Your task to perform on an android device: empty trash in google photos Image 0: 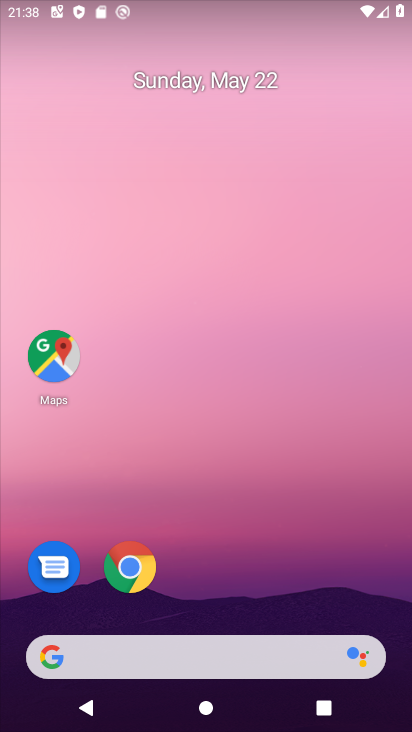
Step 0: drag from (222, 582) to (221, 338)
Your task to perform on an android device: empty trash in google photos Image 1: 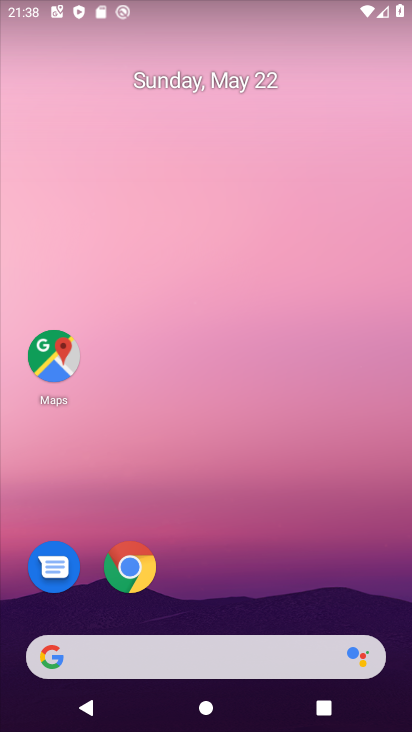
Step 1: drag from (267, 557) to (229, 327)
Your task to perform on an android device: empty trash in google photos Image 2: 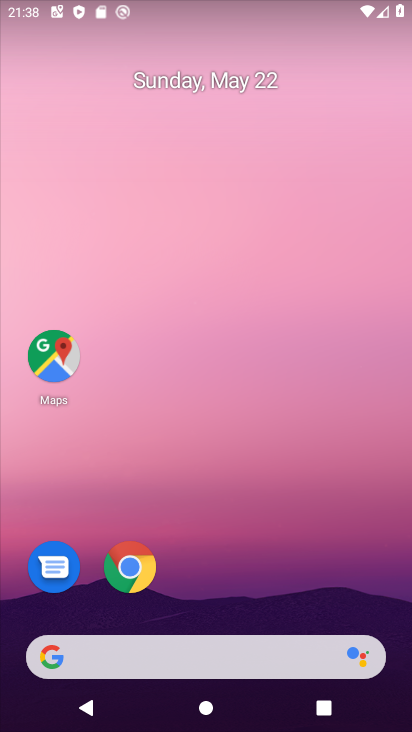
Step 2: drag from (231, 572) to (197, 283)
Your task to perform on an android device: empty trash in google photos Image 3: 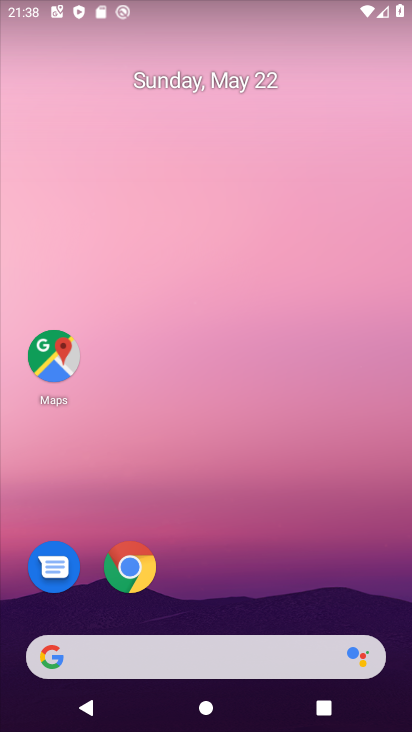
Step 3: drag from (219, 645) to (177, 255)
Your task to perform on an android device: empty trash in google photos Image 4: 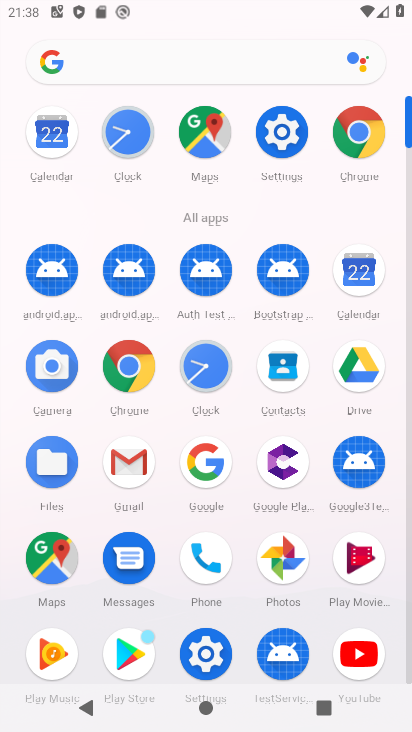
Step 4: click (291, 551)
Your task to perform on an android device: empty trash in google photos Image 5: 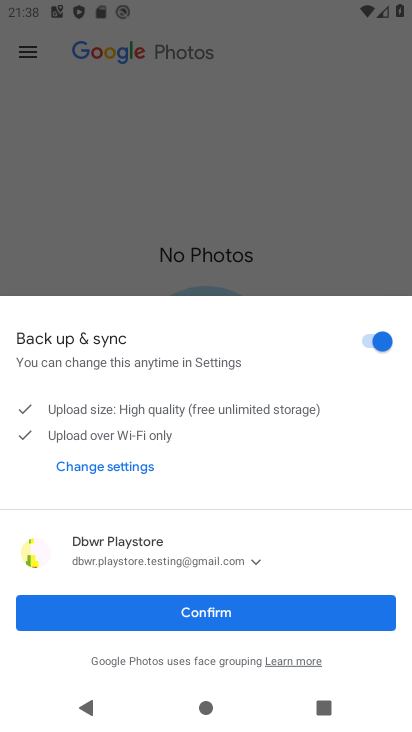
Step 5: click (276, 555)
Your task to perform on an android device: empty trash in google photos Image 6: 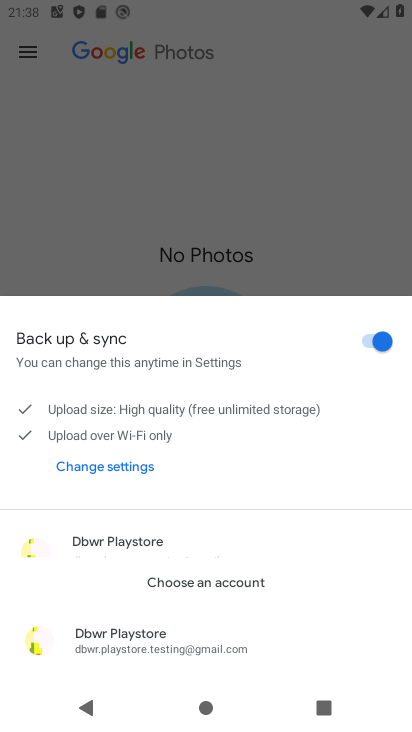
Step 6: click (233, 611)
Your task to perform on an android device: empty trash in google photos Image 7: 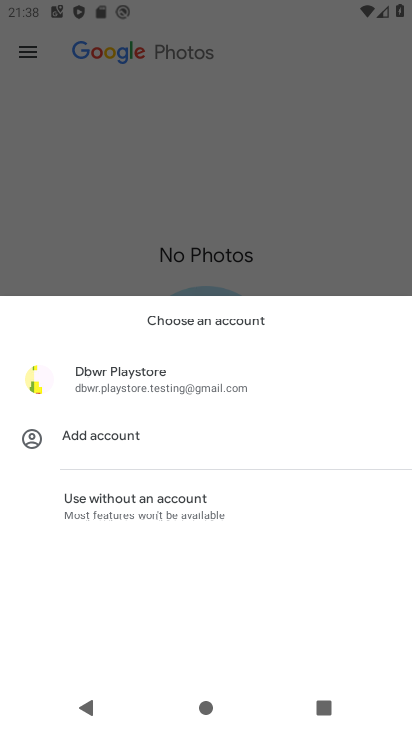
Step 7: click (233, 611)
Your task to perform on an android device: empty trash in google photos Image 8: 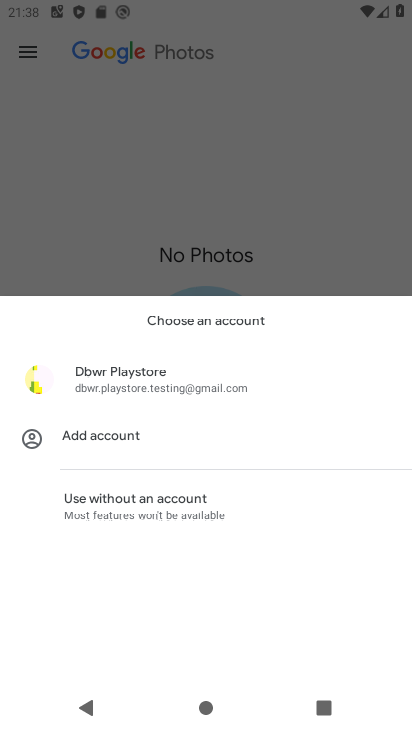
Step 8: click (97, 225)
Your task to perform on an android device: empty trash in google photos Image 9: 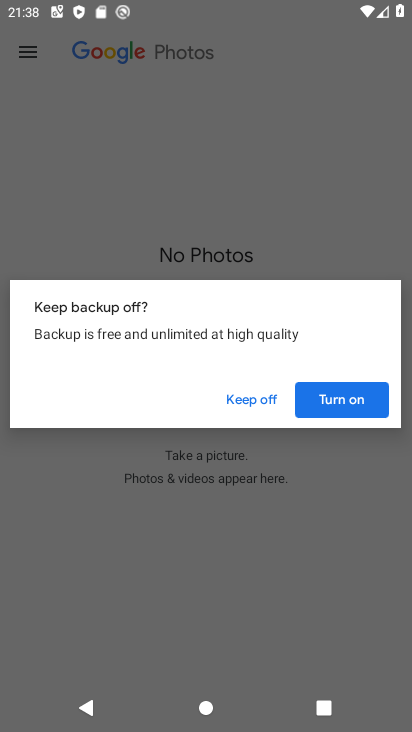
Step 9: click (24, 58)
Your task to perform on an android device: empty trash in google photos Image 10: 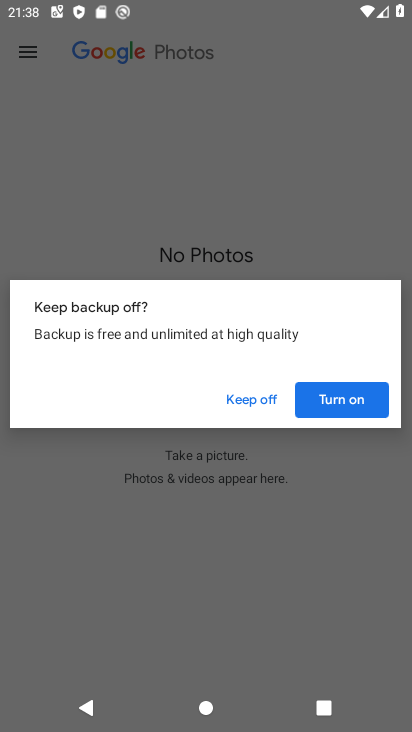
Step 10: click (260, 400)
Your task to perform on an android device: empty trash in google photos Image 11: 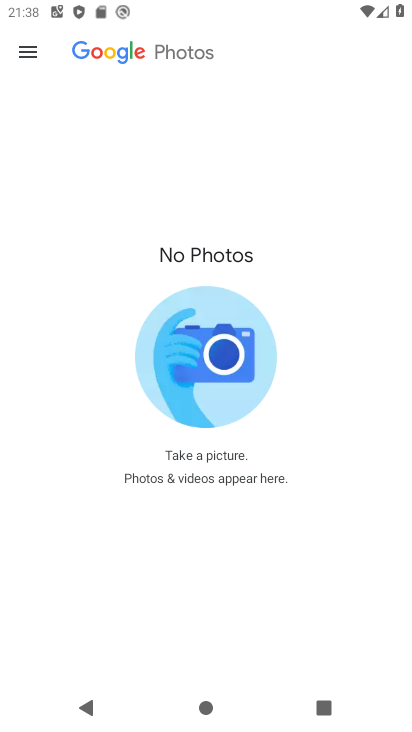
Step 11: click (27, 61)
Your task to perform on an android device: empty trash in google photos Image 12: 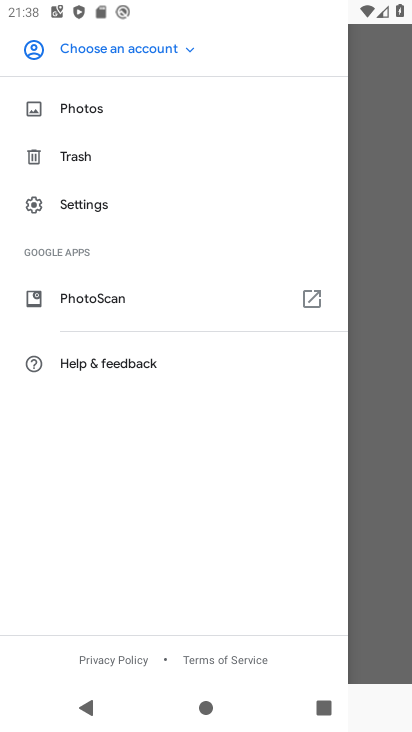
Step 12: click (46, 163)
Your task to perform on an android device: empty trash in google photos Image 13: 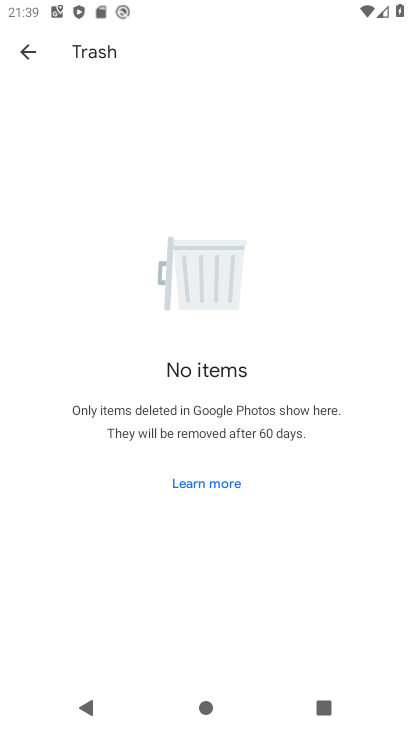
Step 13: task complete